Your task to perform on an android device: Check the news Image 0: 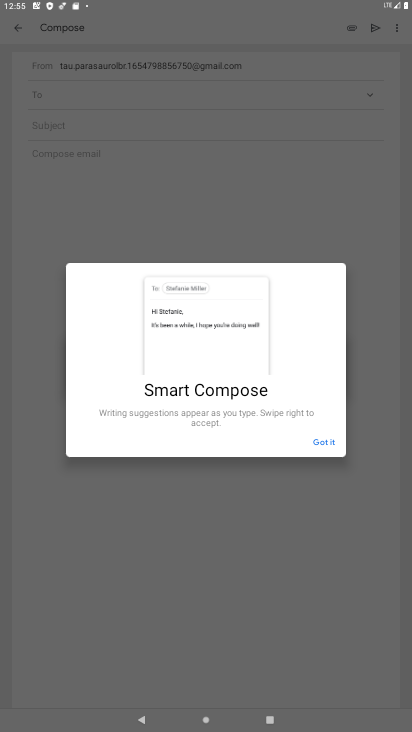
Step 0: press home button
Your task to perform on an android device: Check the news Image 1: 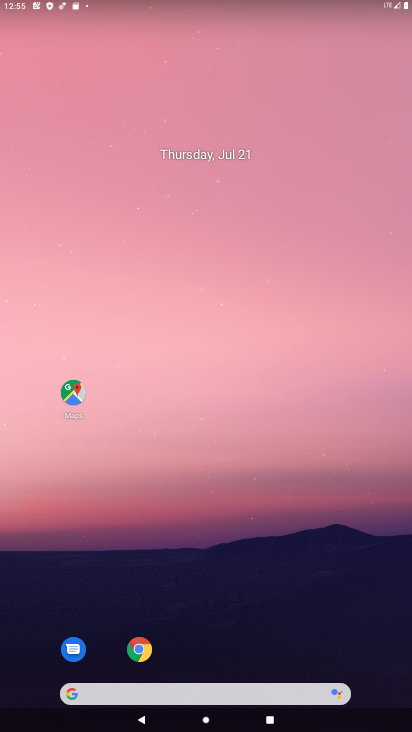
Step 1: task complete